Your task to perform on an android device: turn notification dots on Image 0: 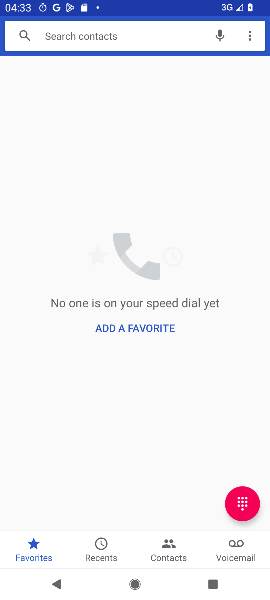
Step 0: press home button
Your task to perform on an android device: turn notification dots on Image 1: 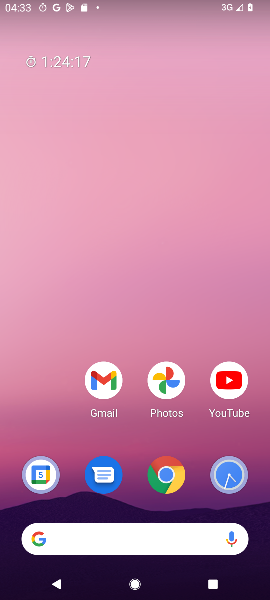
Step 1: drag from (63, 441) to (52, 166)
Your task to perform on an android device: turn notification dots on Image 2: 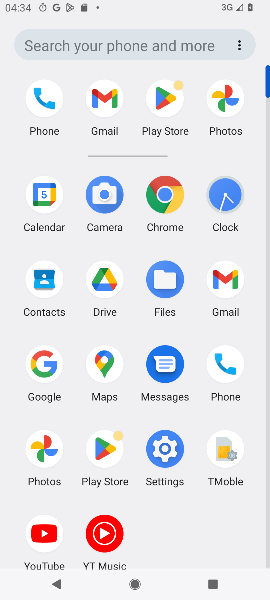
Step 2: click (164, 456)
Your task to perform on an android device: turn notification dots on Image 3: 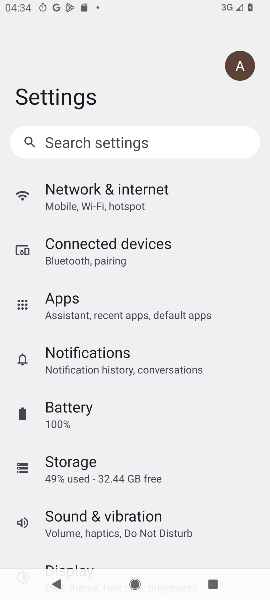
Step 3: drag from (230, 431) to (238, 338)
Your task to perform on an android device: turn notification dots on Image 4: 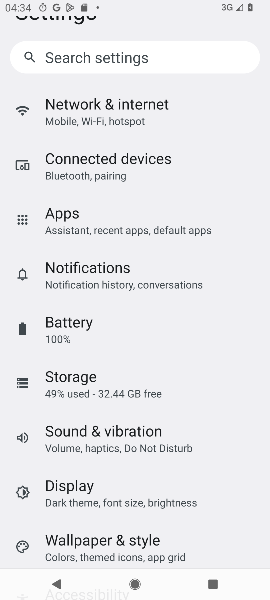
Step 4: drag from (227, 440) to (239, 346)
Your task to perform on an android device: turn notification dots on Image 5: 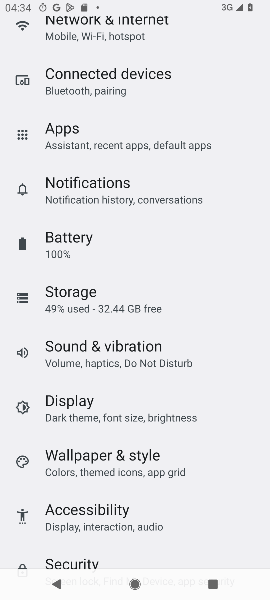
Step 5: drag from (224, 461) to (237, 352)
Your task to perform on an android device: turn notification dots on Image 6: 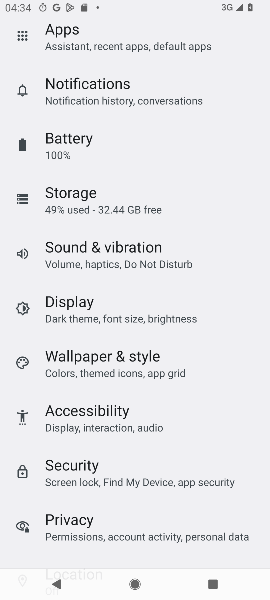
Step 6: drag from (239, 499) to (251, 355)
Your task to perform on an android device: turn notification dots on Image 7: 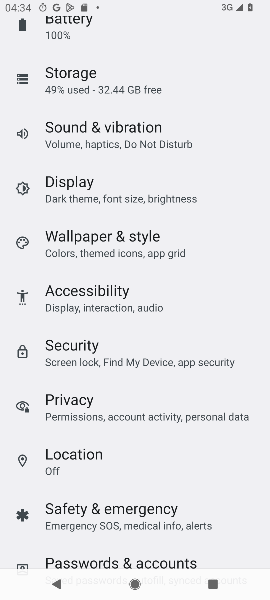
Step 7: drag from (246, 275) to (246, 356)
Your task to perform on an android device: turn notification dots on Image 8: 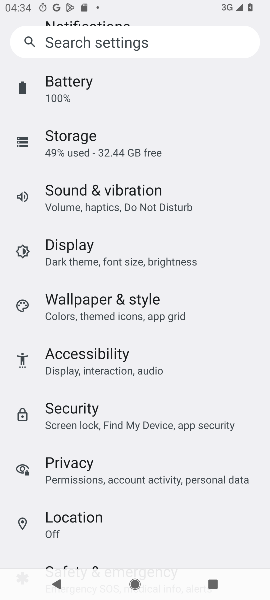
Step 8: drag from (235, 215) to (235, 331)
Your task to perform on an android device: turn notification dots on Image 9: 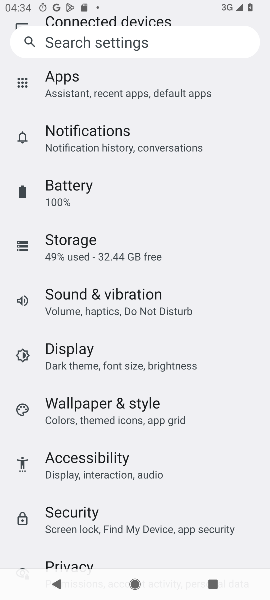
Step 9: drag from (235, 169) to (235, 298)
Your task to perform on an android device: turn notification dots on Image 10: 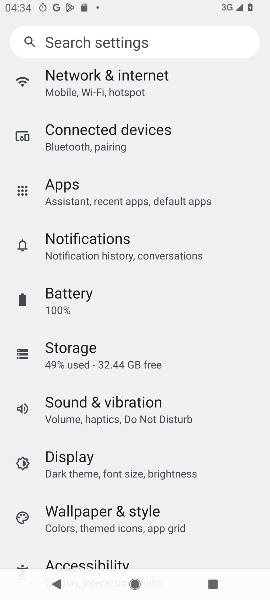
Step 10: drag from (238, 133) to (239, 339)
Your task to perform on an android device: turn notification dots on Image 11: 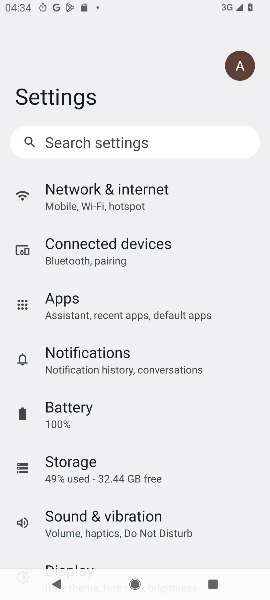
Step 11: click (187, 361)
Your task to perform on an android device: turn notification dots on Image 12: 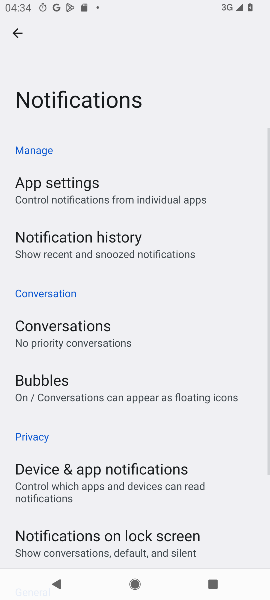
Step 12: task complete